Your task to perform on an android device: turn on improve location accuracy Image 0: 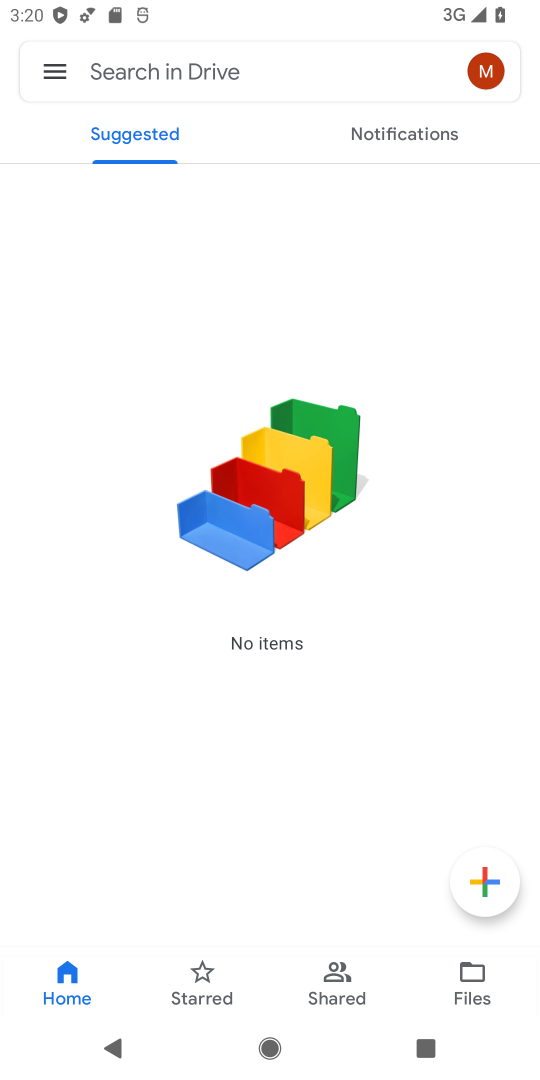
Step 0: press home button
Your task to perform on an android device: turn on improve location accuracy Image 1: 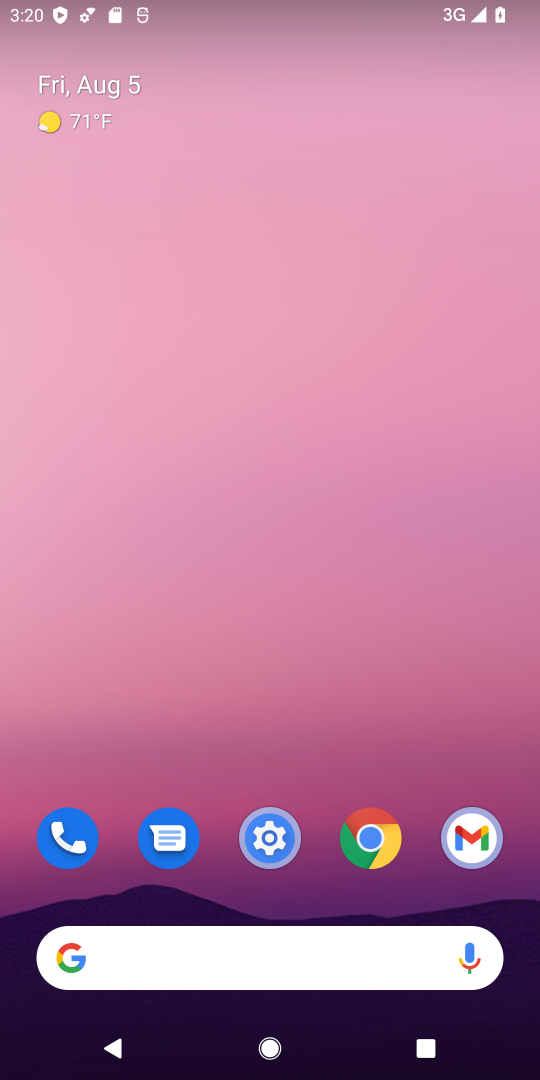
Step 1: drag from (239, 787) to (287, 137)
Your task to perform on an android device: turn on improve location accuracy Image 2: 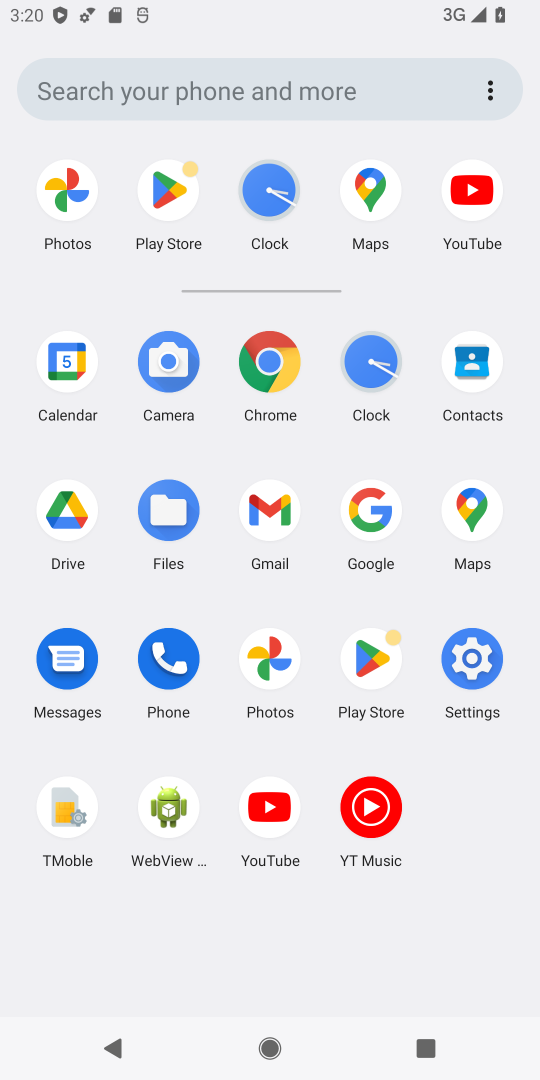
Step 2: click (453, 641)
Your task to perform on an android device: turn on improve location accuracy Image 3: 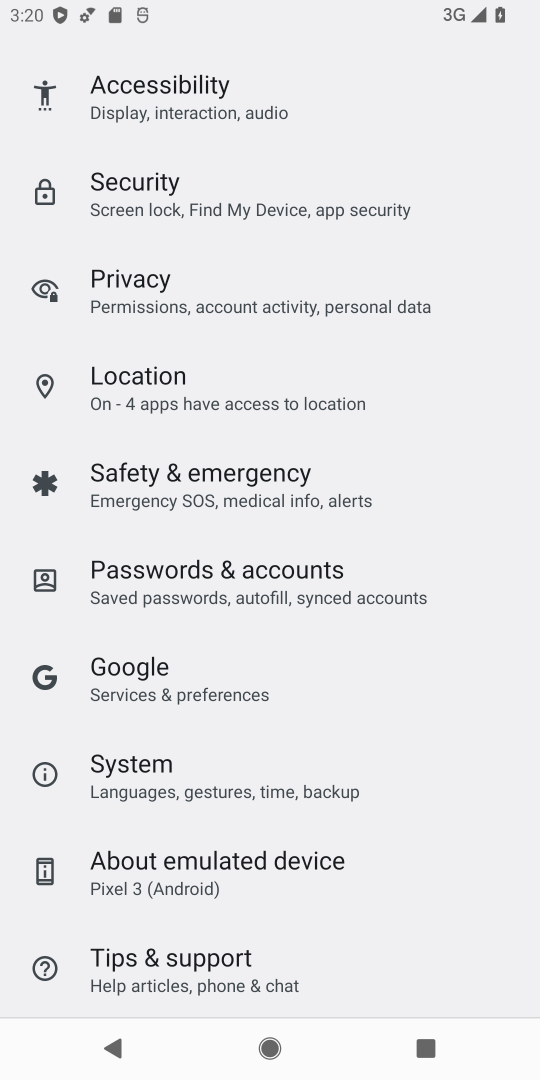
Step 3: click (214, 392)
Your task to perform on an android device: turn on improve location accuracy Image 4: 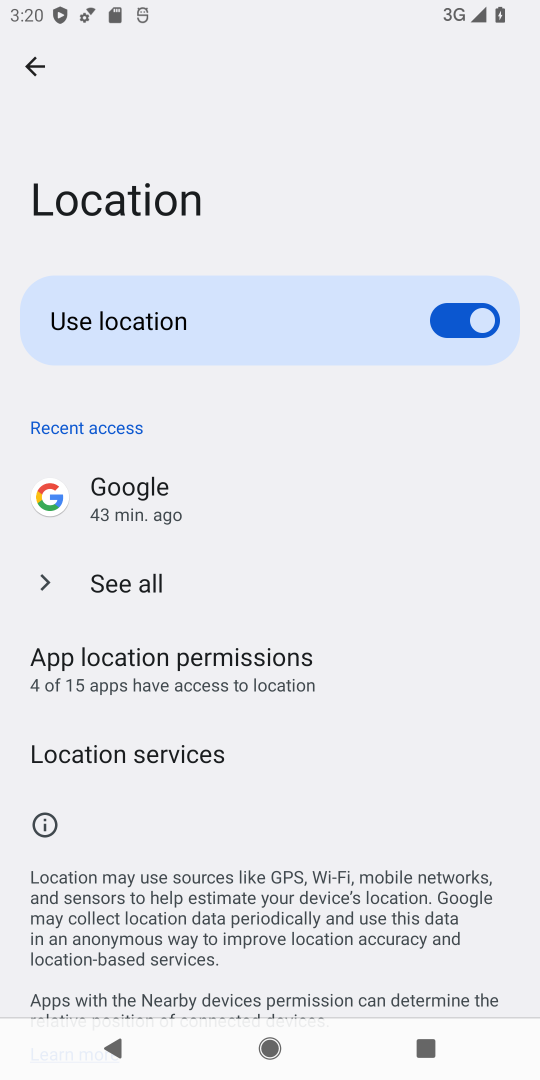
Step 4: click (62, 830)
Your task to perform on an android device: turn on improve location accuracy Image 5: 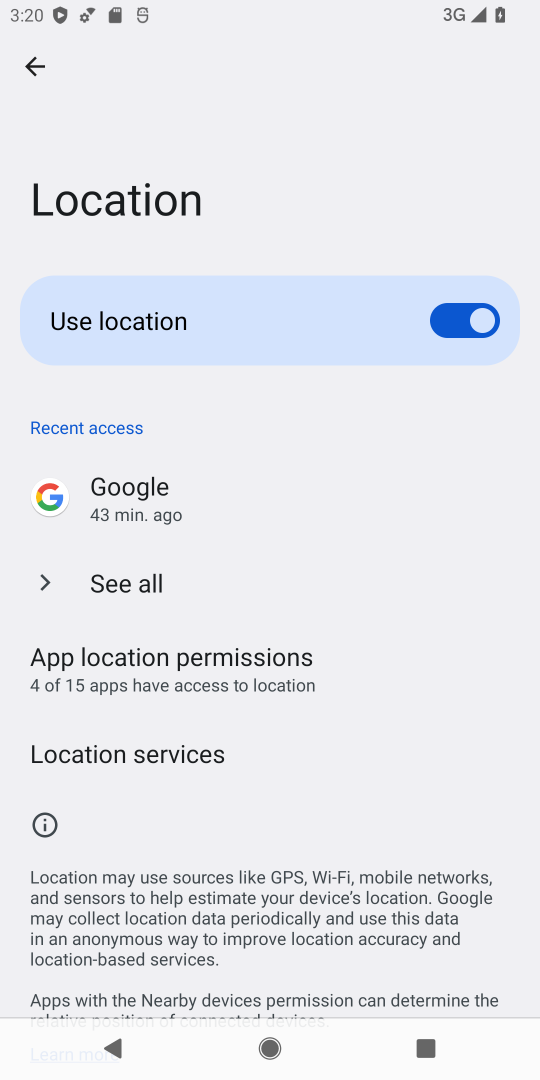
Step 5: click (102, 761)
Your task to perform on an android device: turn on improve location accuracy Image 6: 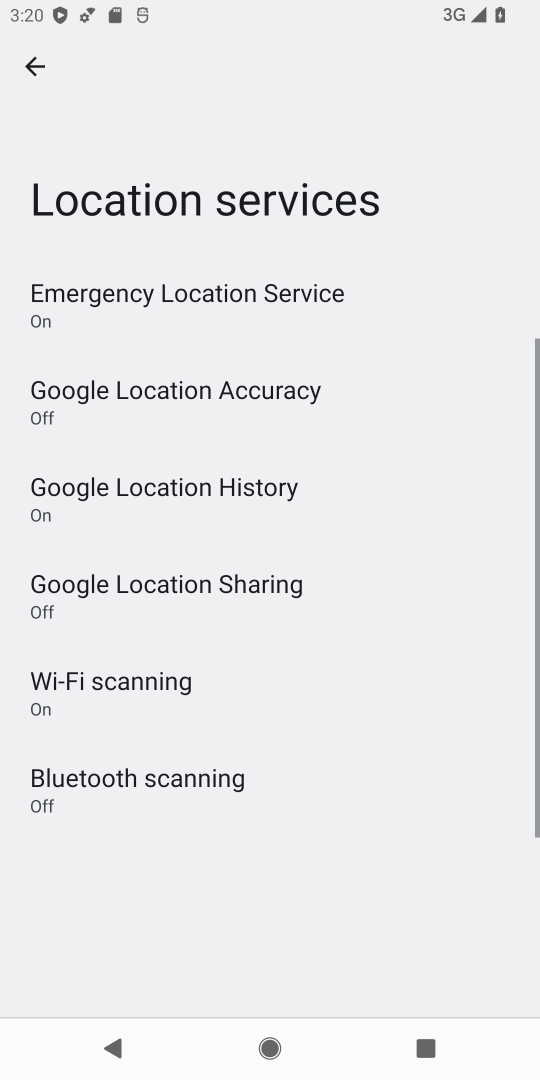
Step 6: click (232, 407)
Your task to perform on an android device: turn on improve location accuracy Image 7: 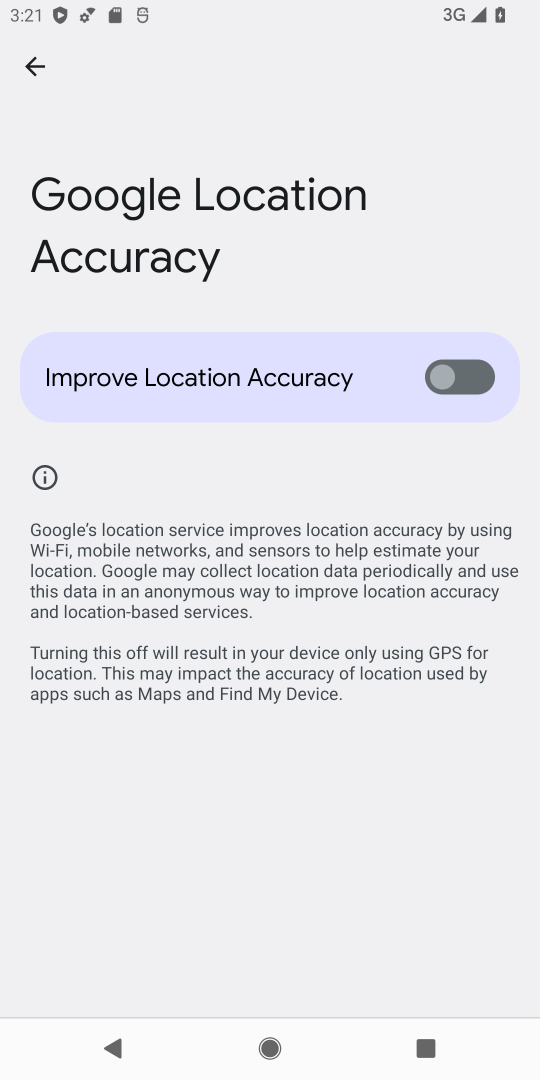
Step 7: click (432, 376)
Your task to perform on an android device: turn on improve location accuracy Image 8: 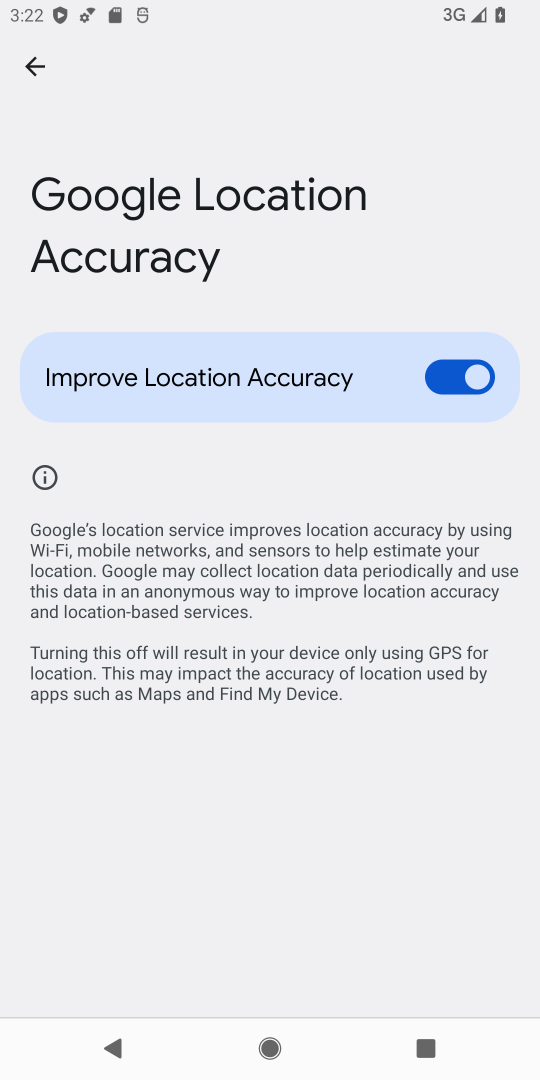
Step 8: task complete